Your task to perform on an android device: Open location settings Image 0: 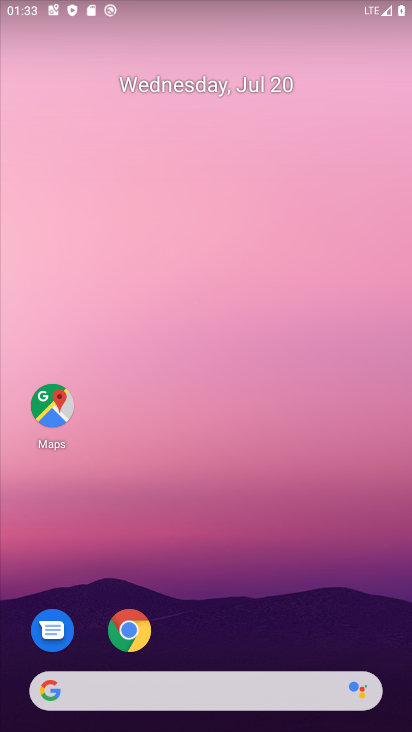
Step 0: drag from (329, 593) to (247, 70)
Your task to perform on an android device: Open location settings Image 1: 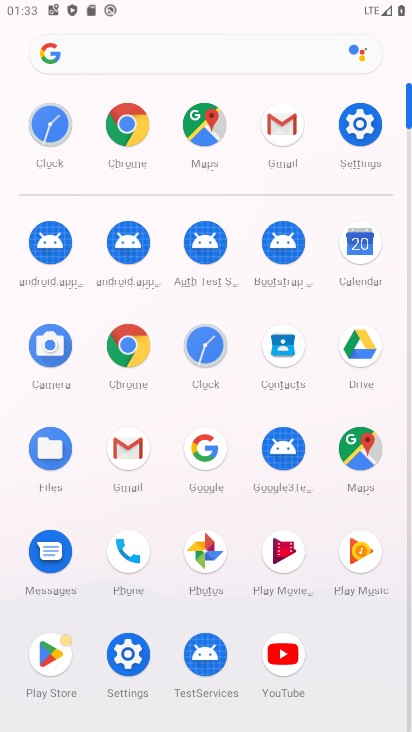
Step 1: click (364, 124)
Your task to perform on an android device: Open location settings Image 2: 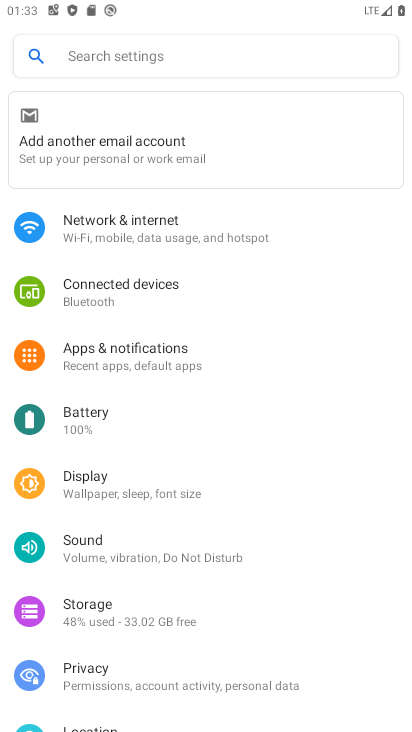
Step 2: drag from (215, 642) to (319, 132)
Your task to perform on an android device: Open location settings Image 3: 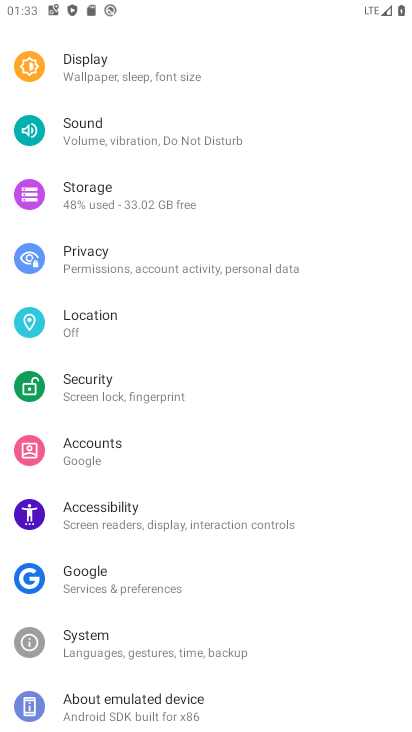
Step 3: click (103, 302)
Your task to perform on an android device: Open location settings Image 4: 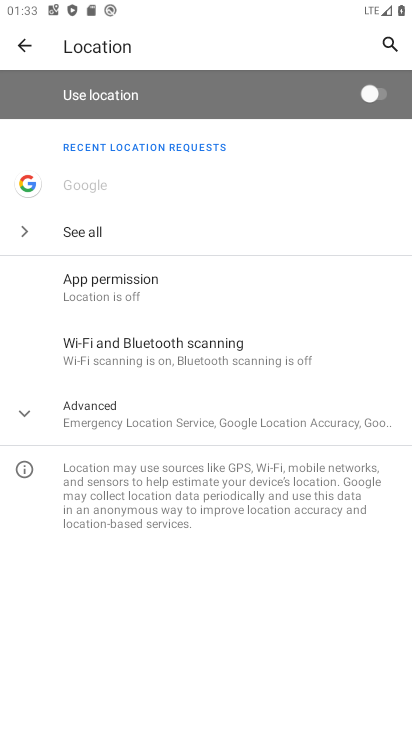
Step 4: task complete